Your task to perform on an android device: Empty the shopping cart on ebay.com. Search for "razer blackwidow" on ebay.com, select the first entry, and add it to the cart. Image 0: 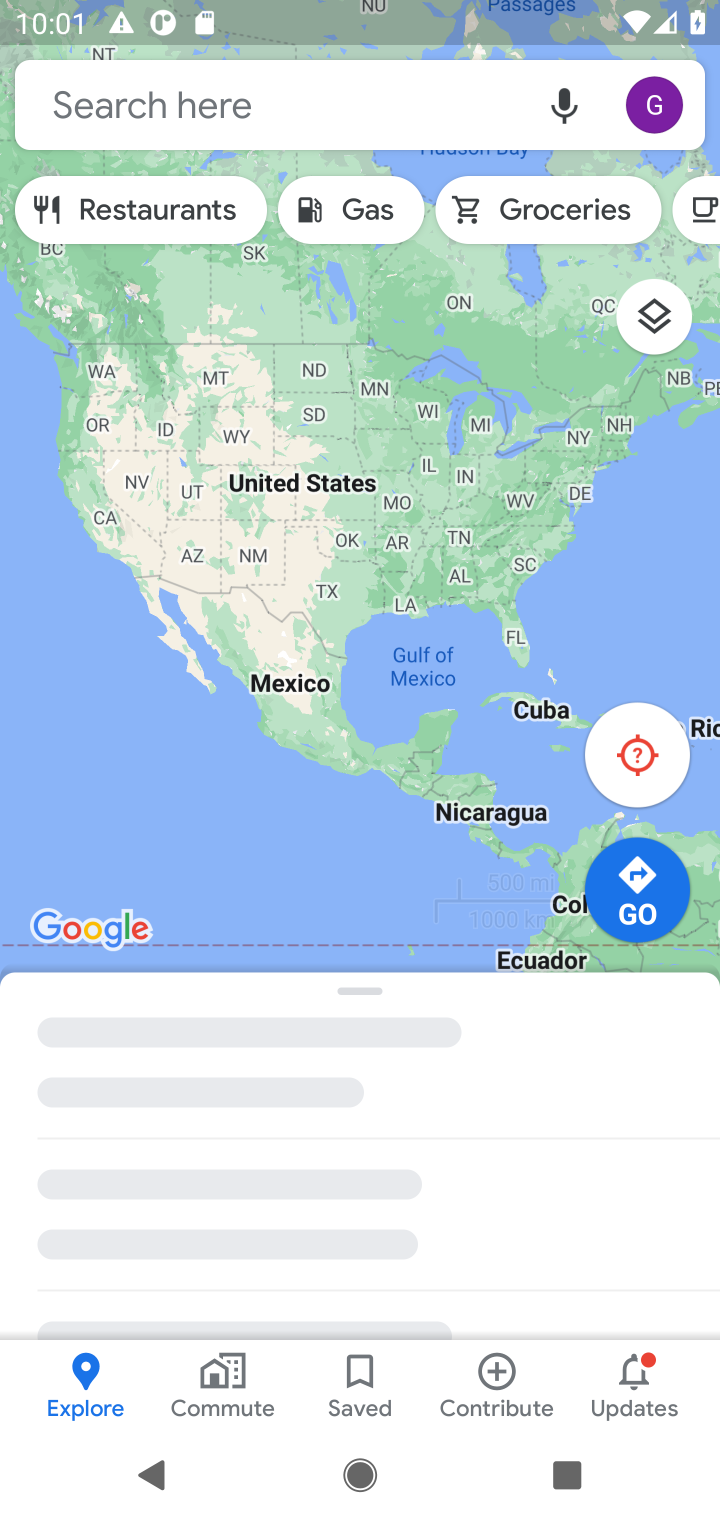
Step 0: press home button
Your task to perform on an android device: Empty the shopping cart on ebay.com. Search for "razer blackwidow" on ebay.com, select the first entry, and add it to the cart. Image 1: 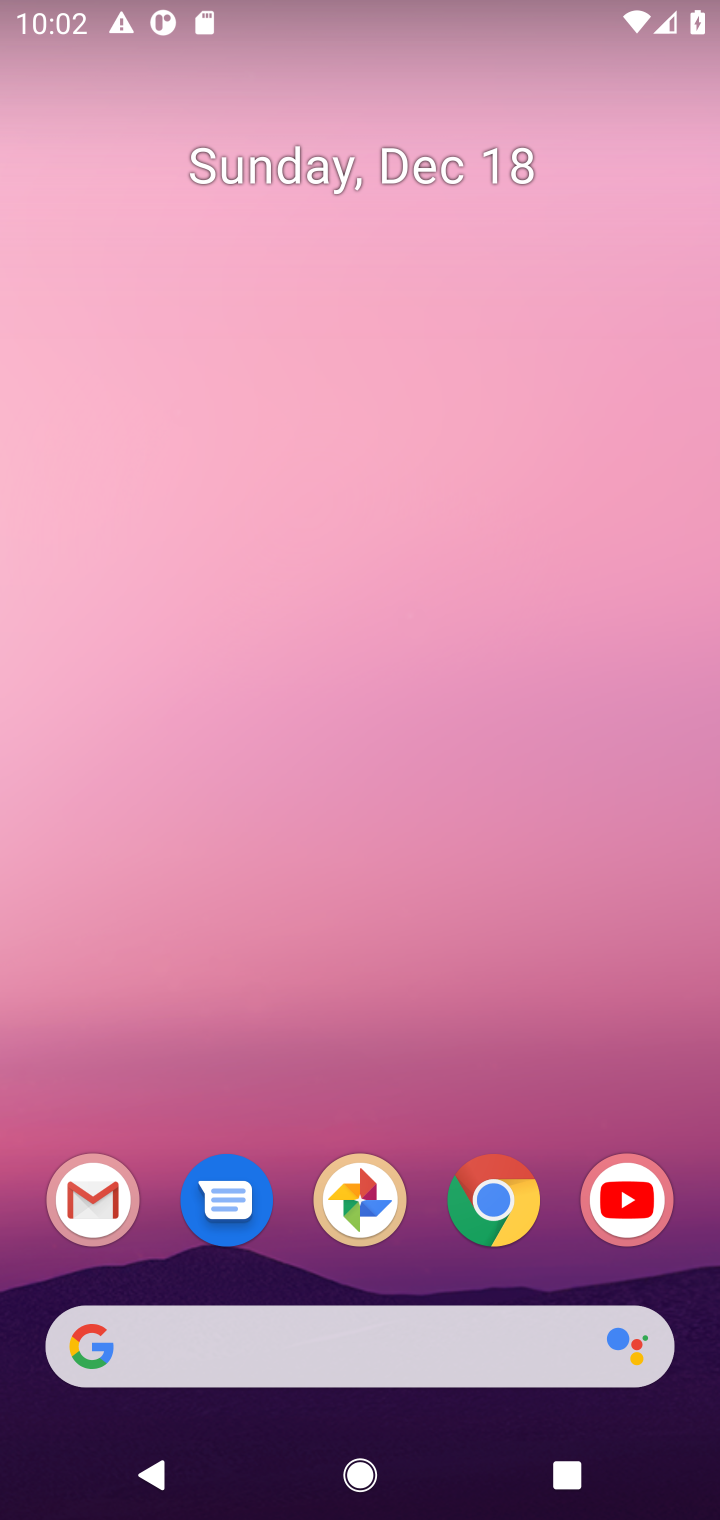
Step 1: click (507, 1204)
Your task to perform on an android device: Empty the shopping cart on ebay.com. Search for "razer blackwidow" on ebay.com, select the first entry, and add it to the cart. Image 2: 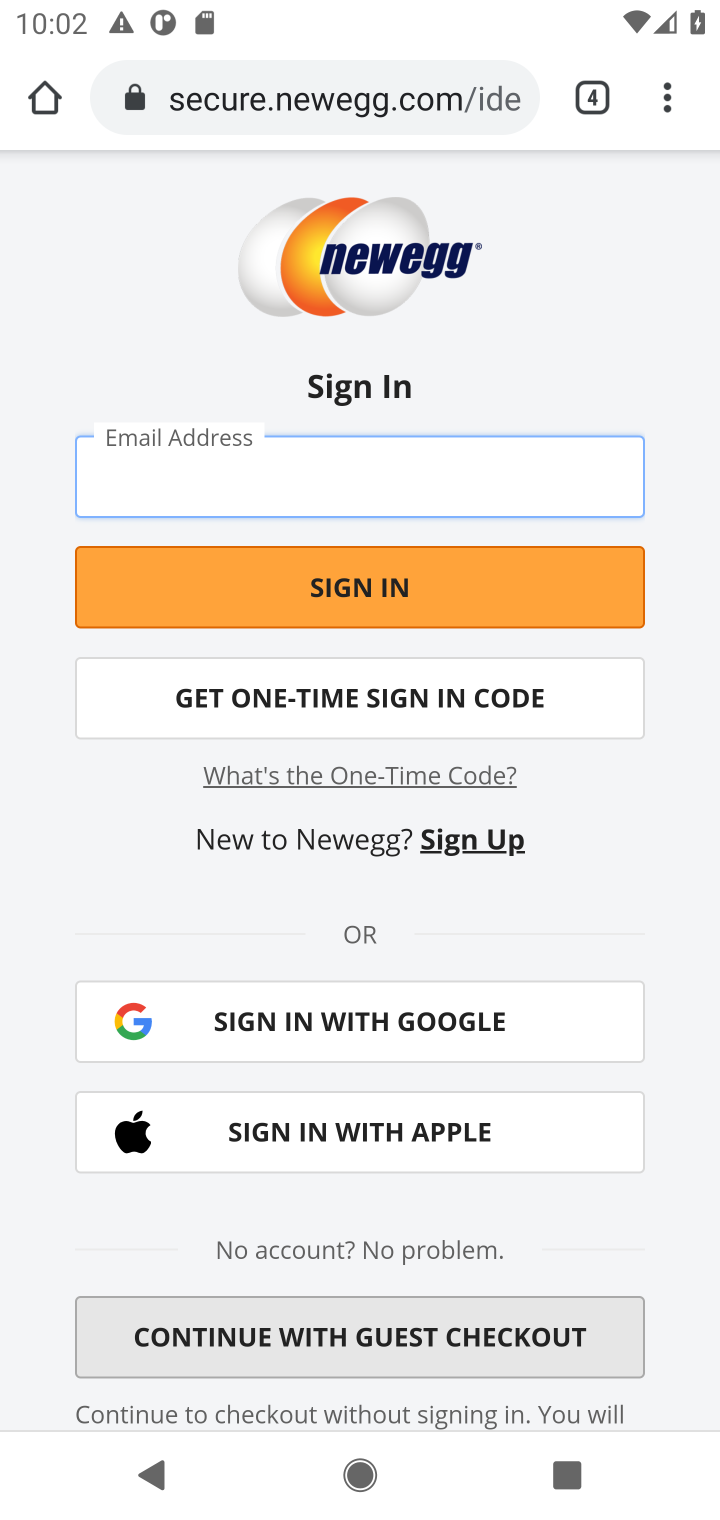
Step 2: click (242, 104)
Your task to perform on an android device: Empty the shopping cart on ebay.com. Search for "razer blackwidow" on ebay.com, select the first entry, and add it to the cart. Image 3: 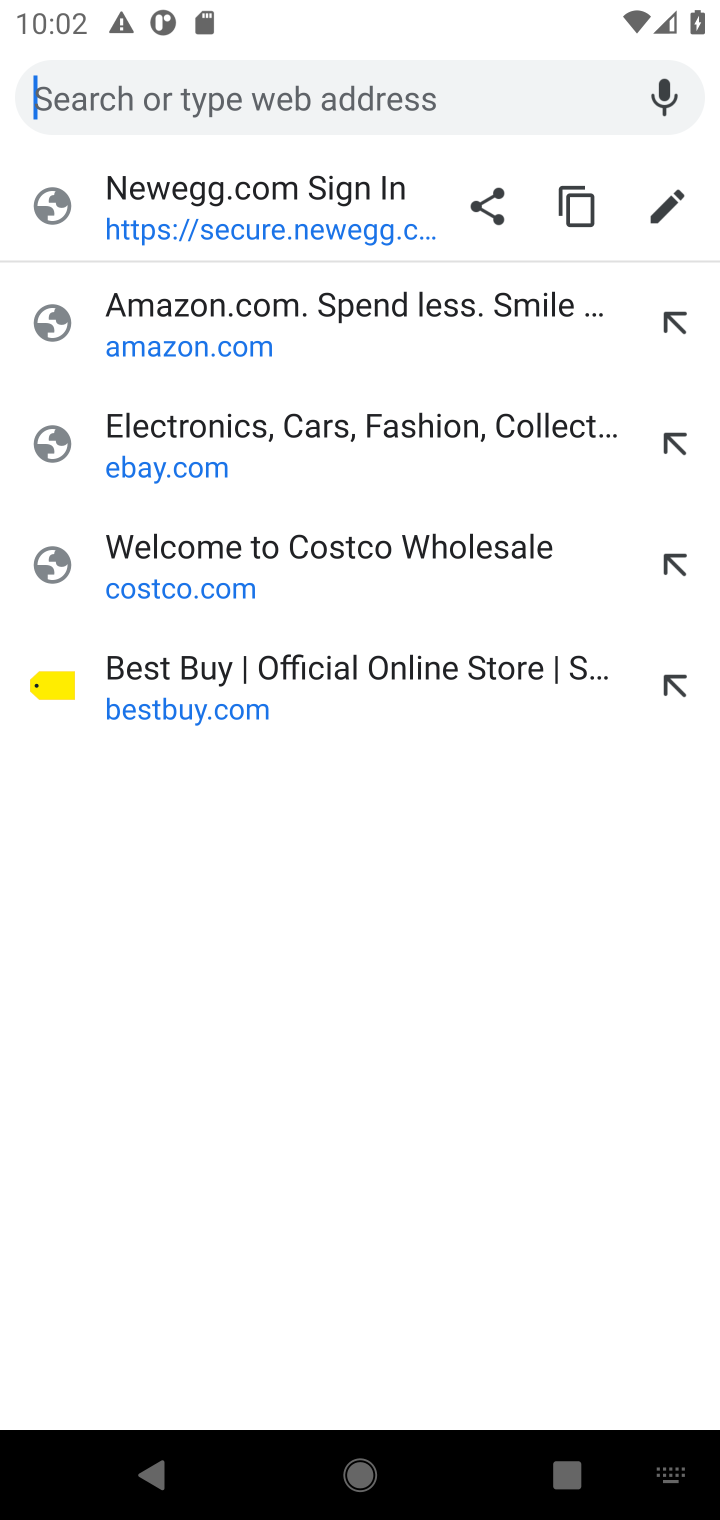
Step 3: click (129, 457)
Your task to perform on an android device: Empty the shopping cart on ebay.com. Search for "razer blackwidow" on ebay.com, select the first entry, and add it to the cart. Image 4: 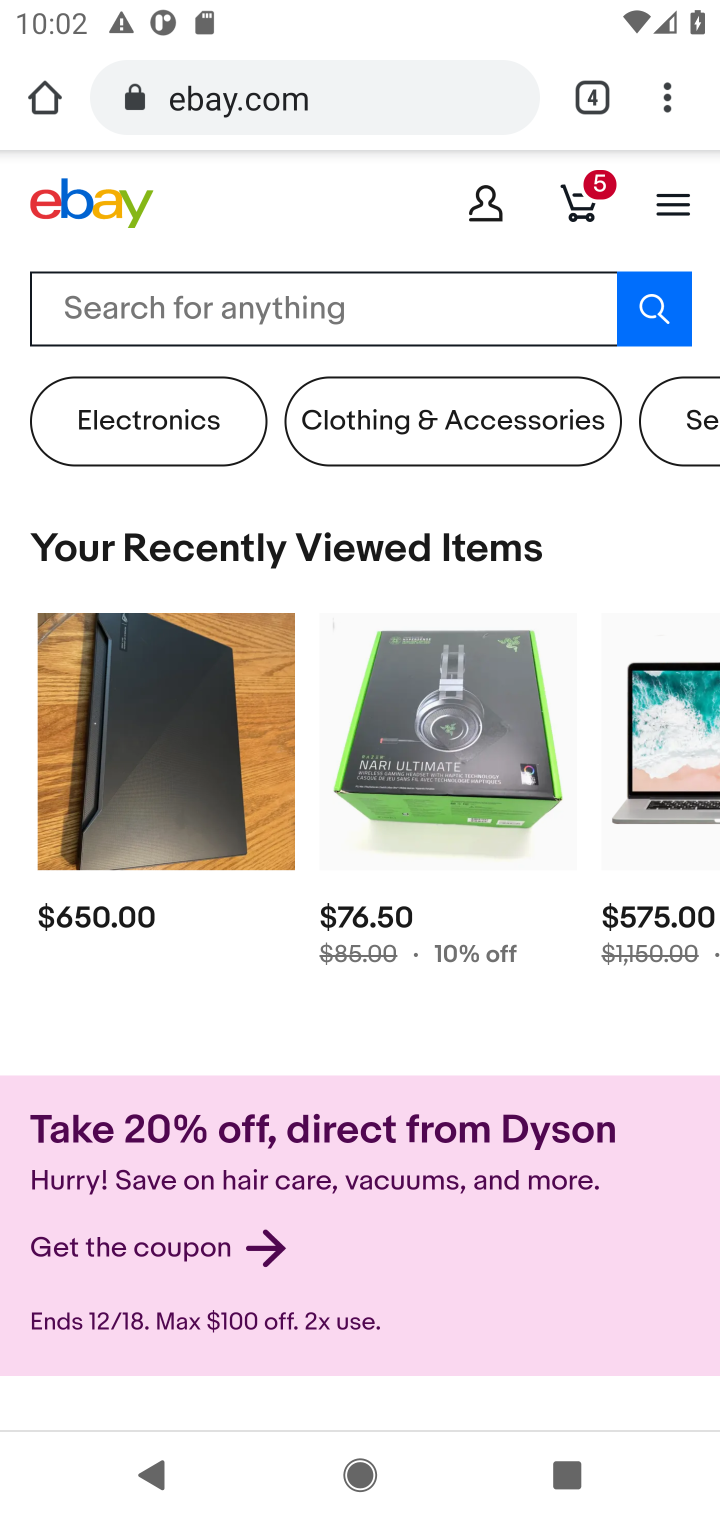
Step 4: click (590, 211)
Your task to perform on an android device: Empty the shopping cart on ebay.com. Search for "razer blackwidow" on ebay.com, select the first entry, and add it to the cart. Image 5: 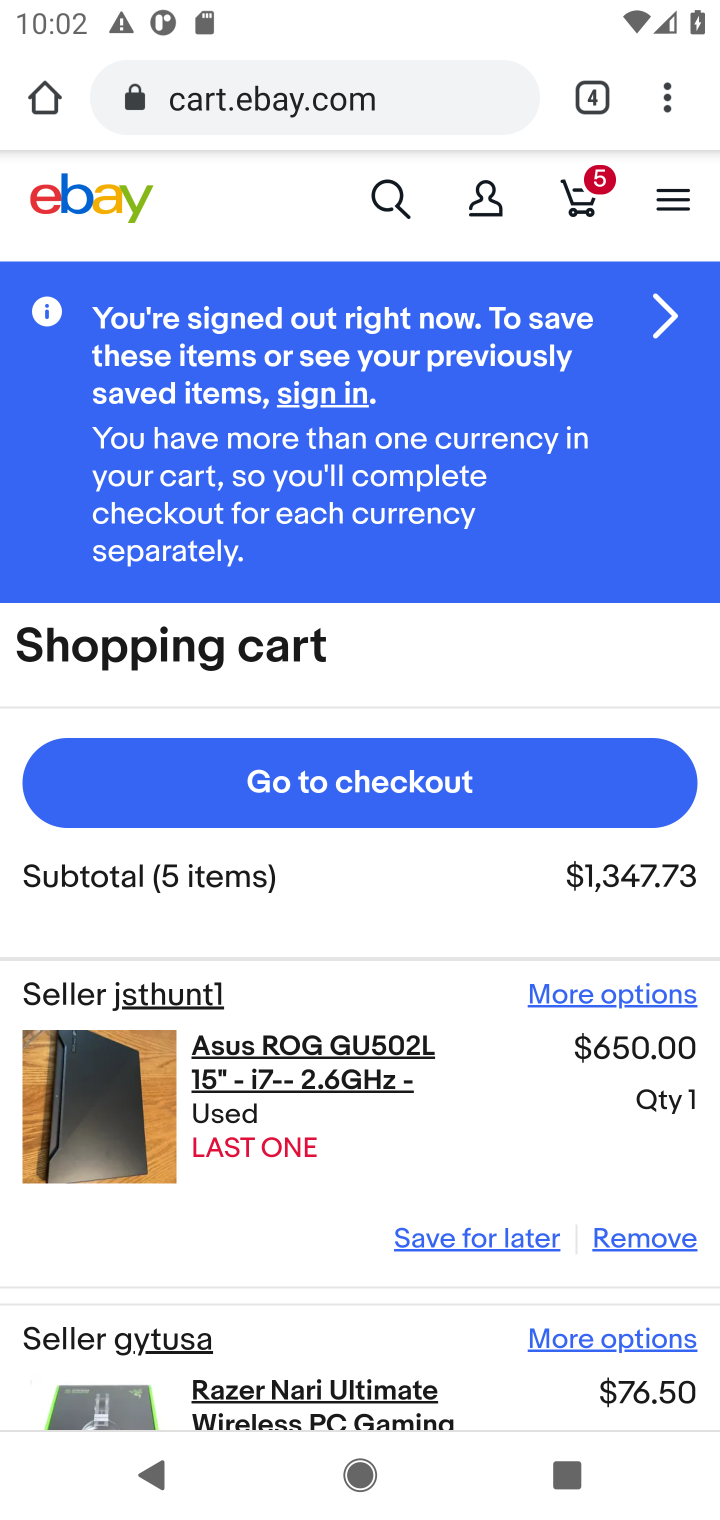
Step 5: click (637, 1233)
Your task to perform on an android device: Empty the shopping cart on ebay.com. Search for "razer blackwidow" on ebay.com, select the first entry, and add it to the cart. Image 6: 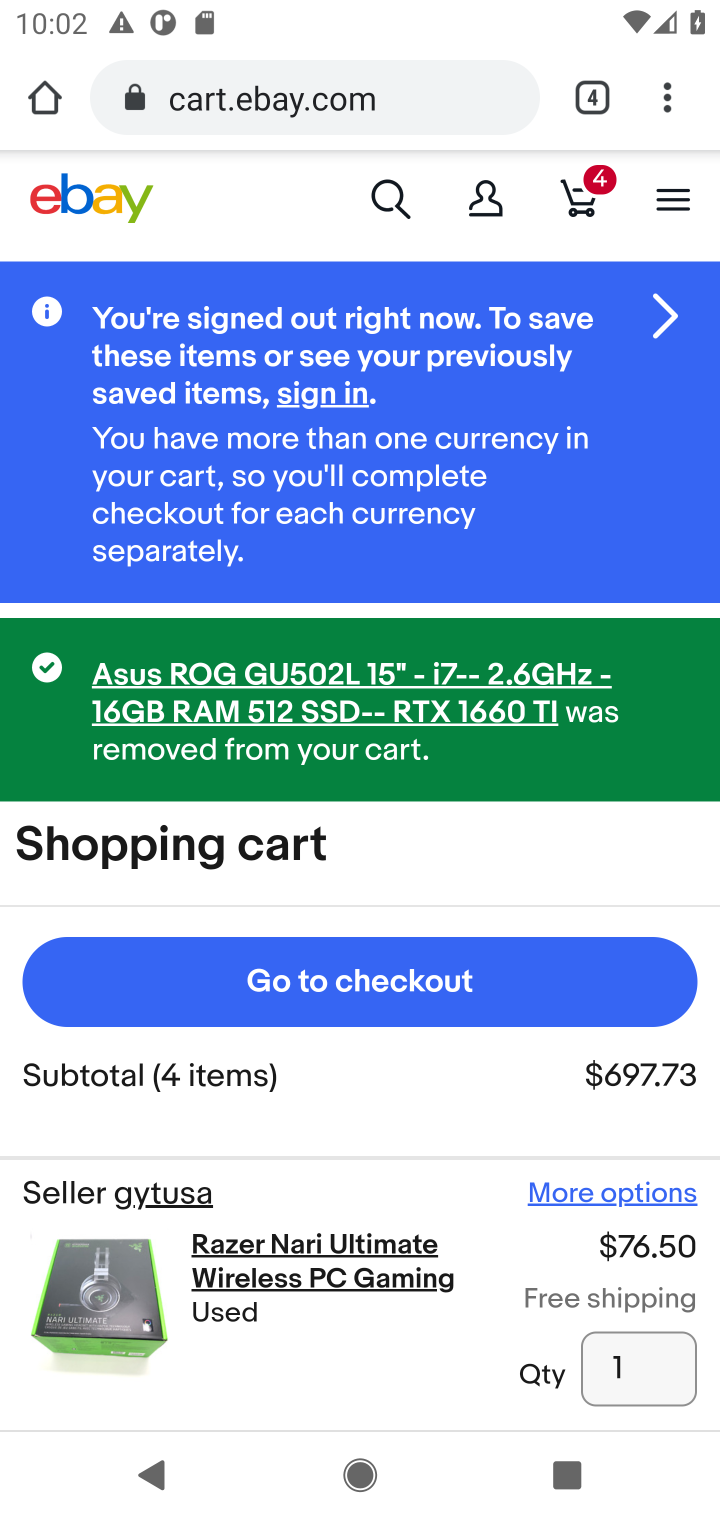
Step 6: drag from (437, 1165) to (433, 556)
Your task to perform on an android device: Empty the shopping cart on ebay.com. Search for "razer blackwidow" on ebay.com, select the first entry, and add it to the cart. Image 7: 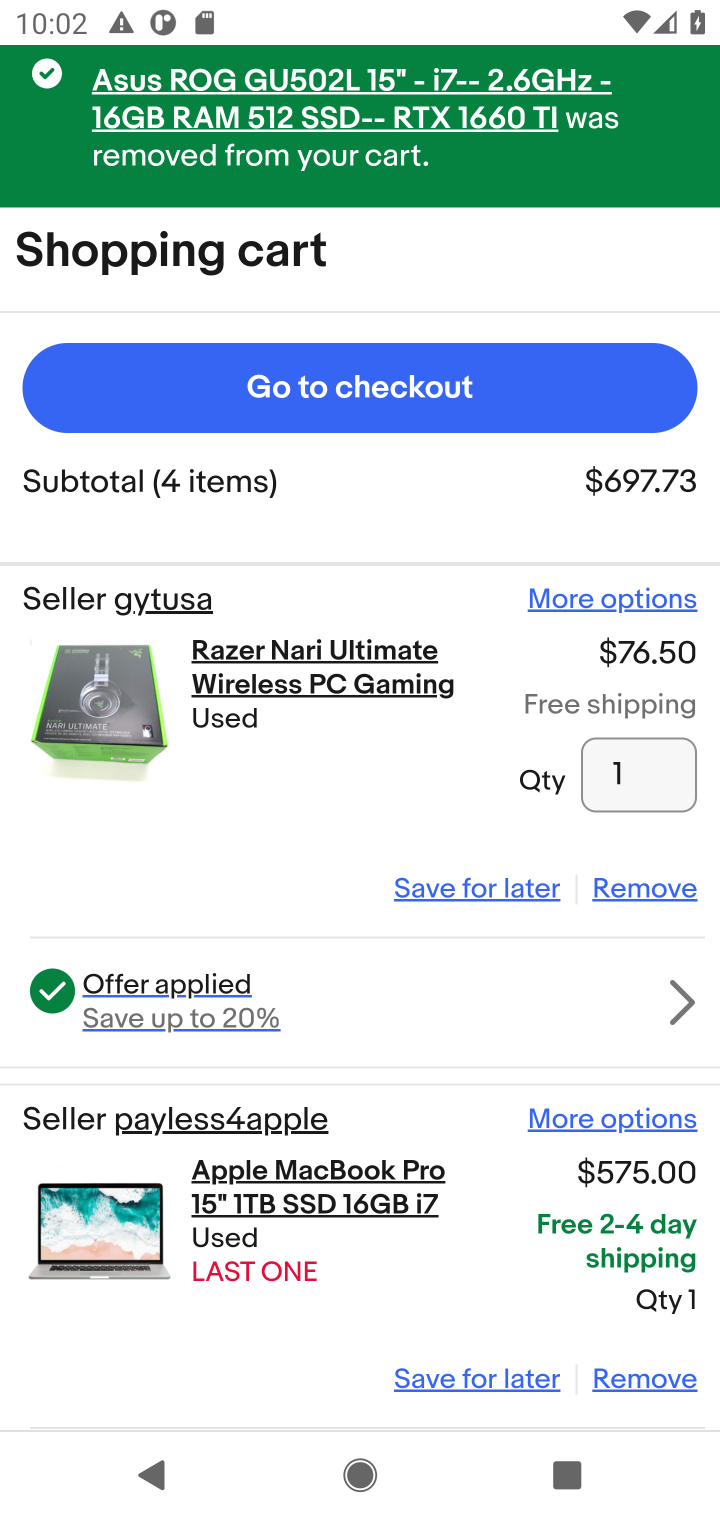
Step 7: click (636, 878)
Your task to perform on an android device: Empty the shopping cart on ebay.com. Search for "razer blackwidow" on ebay.com, select the first entry, and add it to the cart. Image 8: 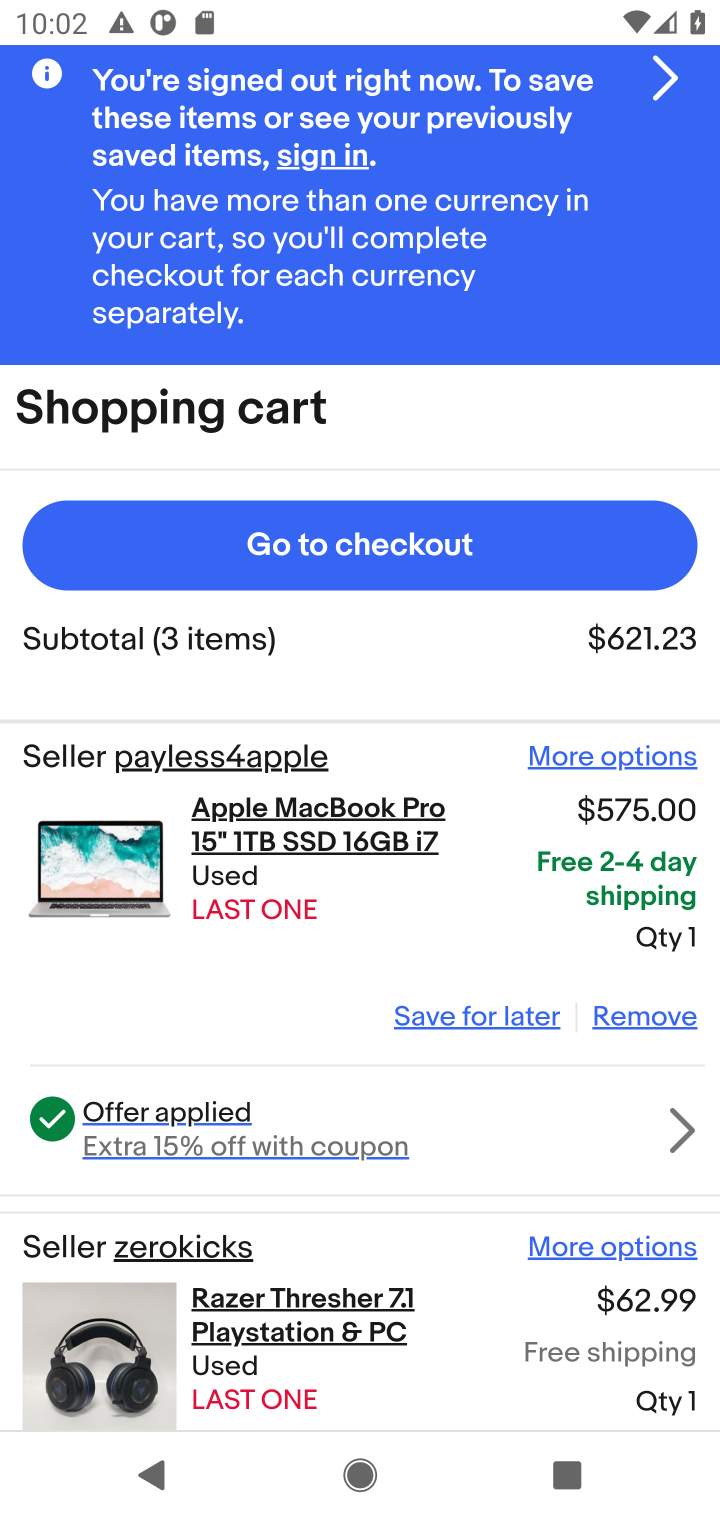
Step 8: click (630, 1018)
Your task to perform on an android device: Empty the shopping cart on ebay.com. Search for "razer blackwidow" on ebay.com, select the first entry, and add it to the cart. Image 9: 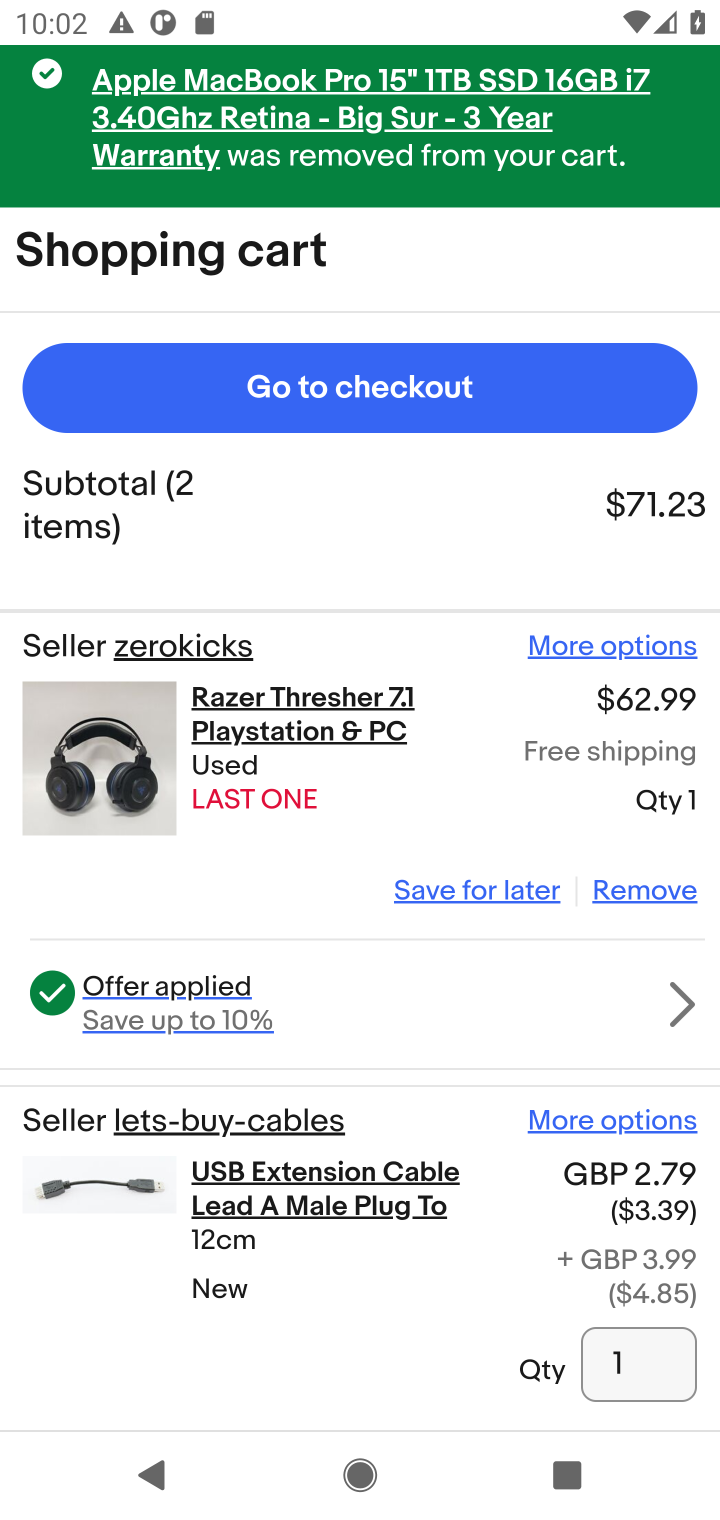
Step 9: click (628, 900)
Your task to perform on an android device: Empty the shopping cart on ebay.com. Search for "razer blackwidow" on ebay.com, select the first entry, and add it to the cart. Image 10: 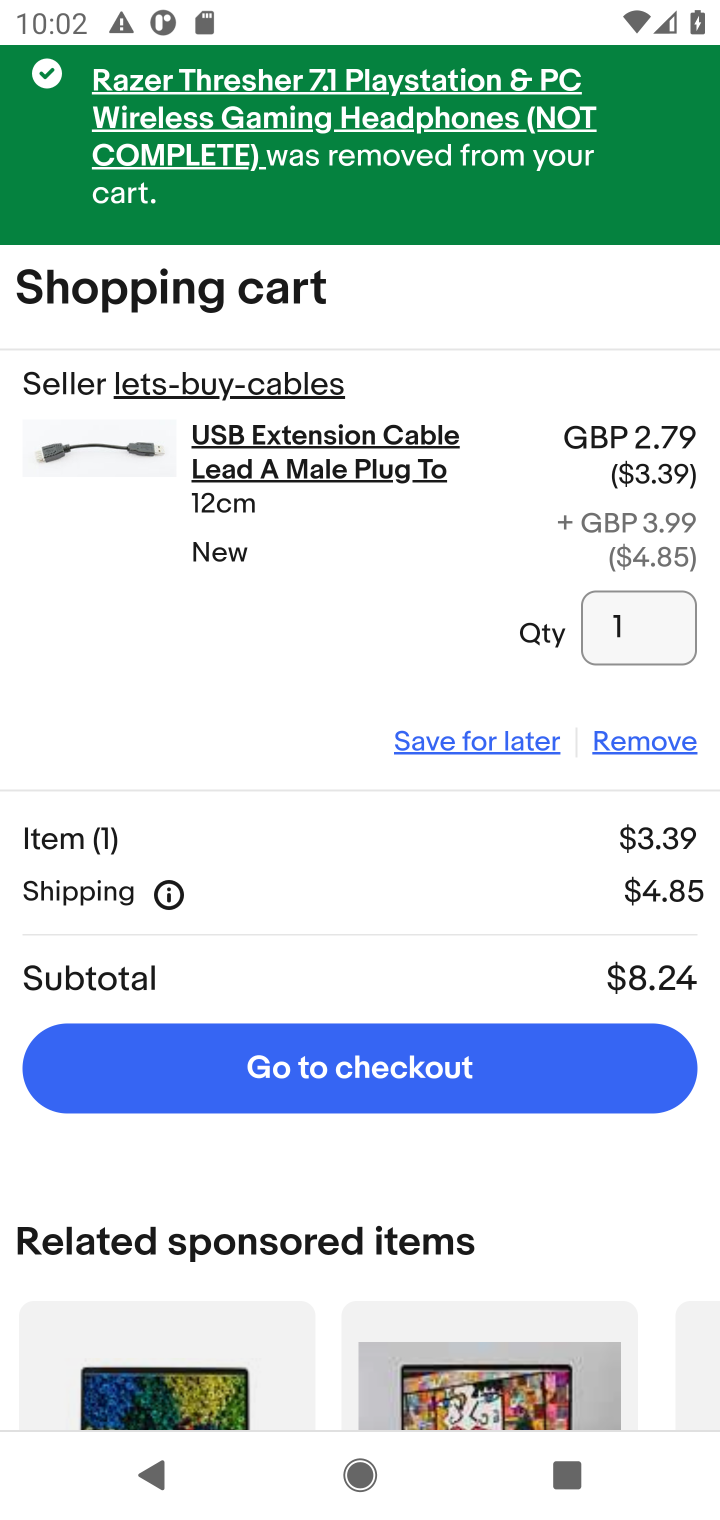
Step 10: click (642, 732)
Your task to perform on an android device: Empty the shopping cart on ebay.com. Search for "razer blackwidow" on ebay.com, select the first entry, and add it to the cart. Image 11: 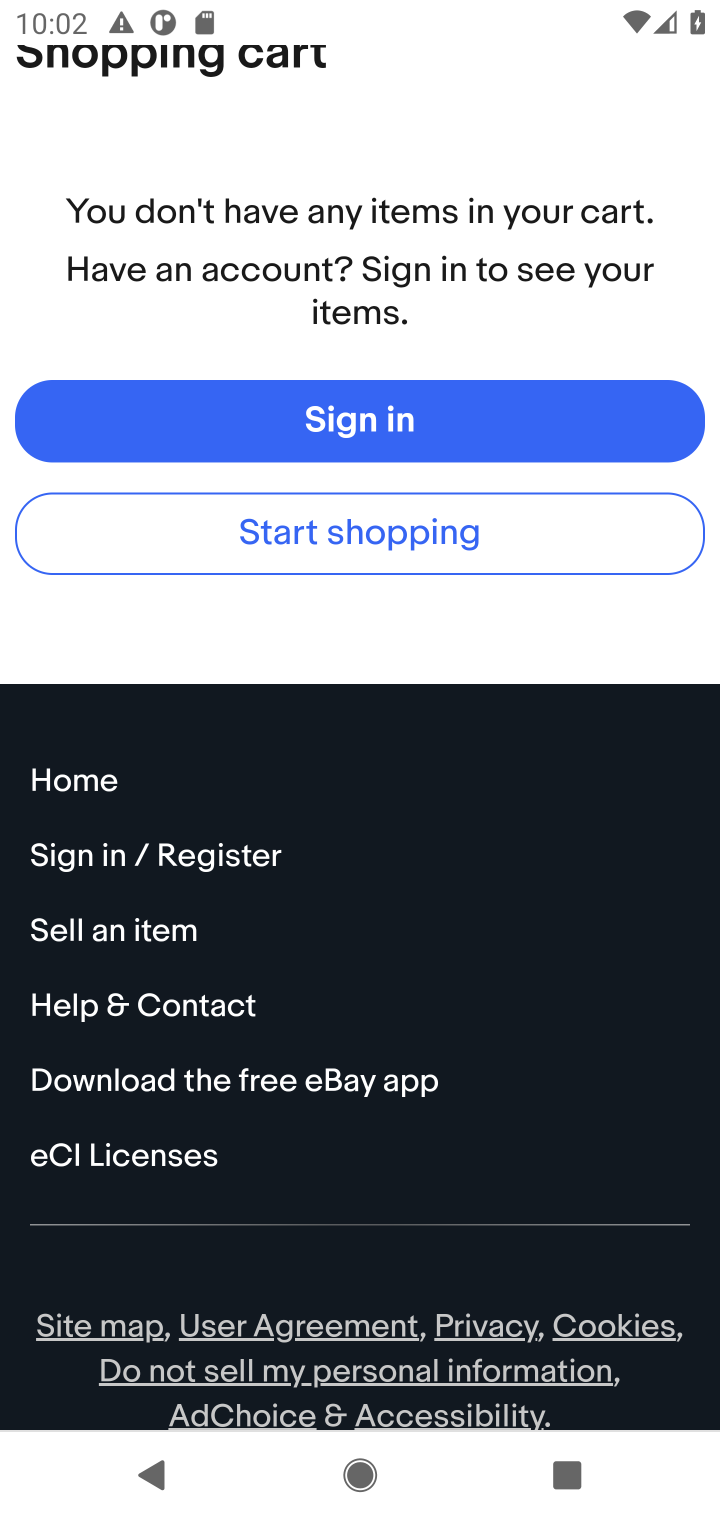
Step 11: drag from (377, 627) to (372, 999)
Your task to perform on an android device: Empty the shopping cart on ebay.com. Search for "razer blackwidow" on ebay.com, select the first entry, and add it to the cart. Image 12: 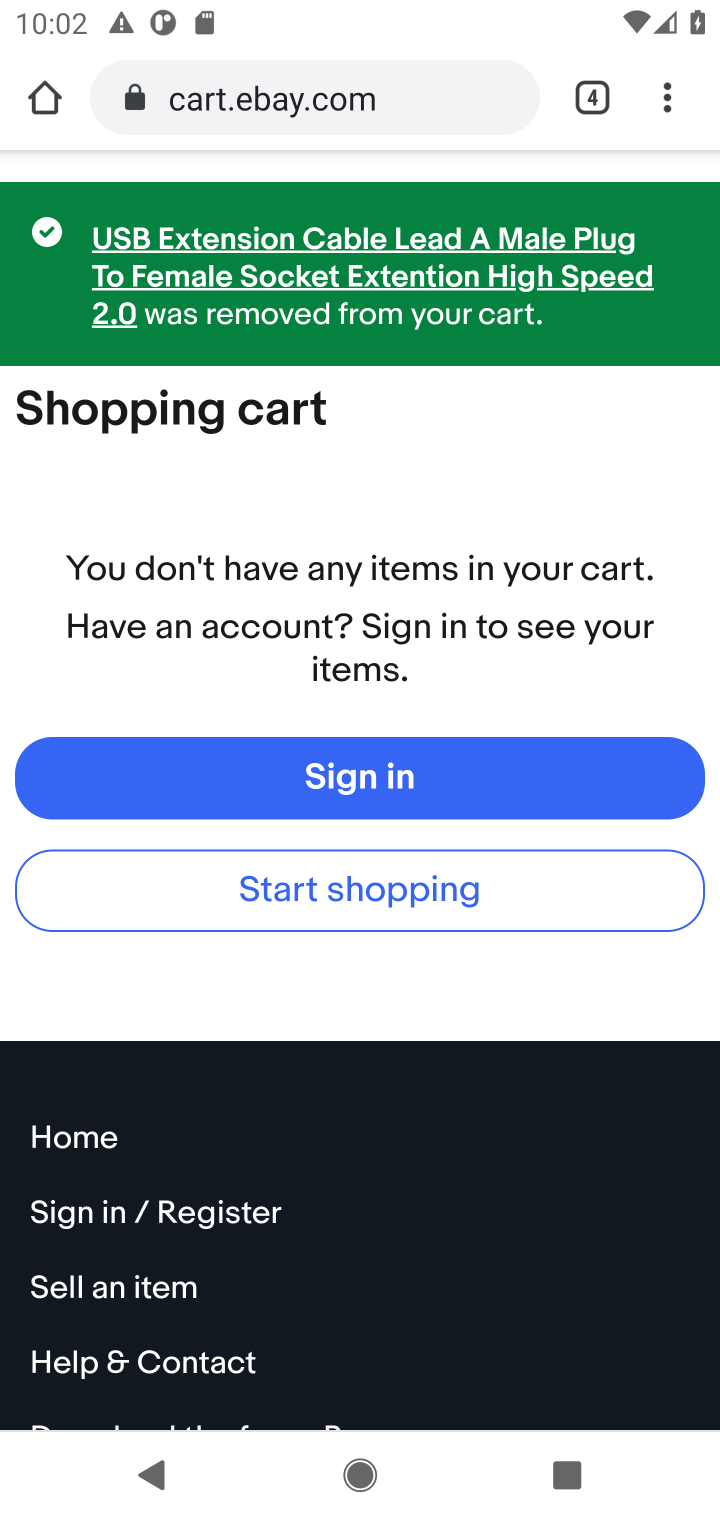
Step 12: drag from (309, 272) to (305, 607)
Your task to perform on an android device: Empty the shopping cart on ebay.com. Search for "razer blackwidow" on ebay.com, select the first entry, and add it to the cart. Image 13: 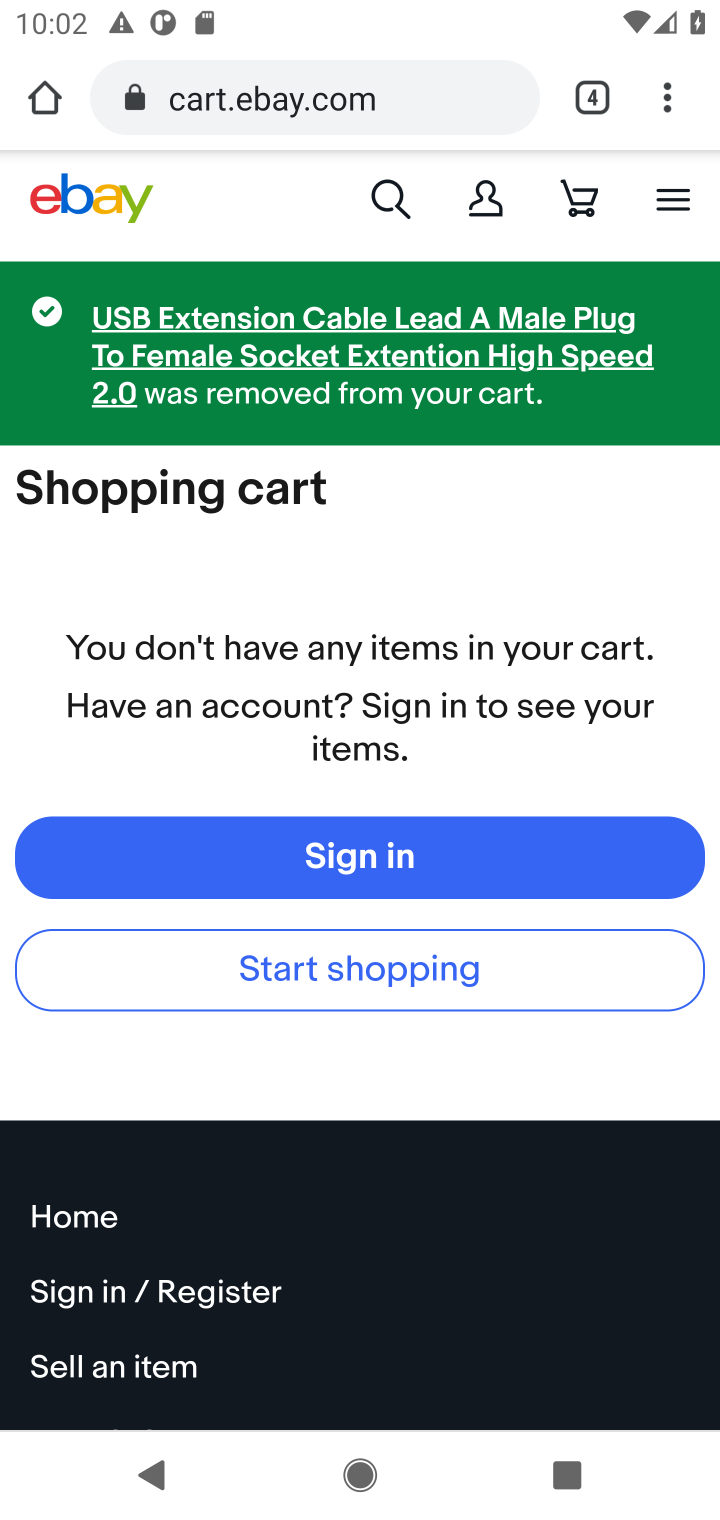
Step 13: click (373, 190)
Your task to perform on an android device: Empty the shopping cart on ebay.com. Search for "razer blackwidow" on ebay.com, select the first entry, and add it to the cart. Image 14: 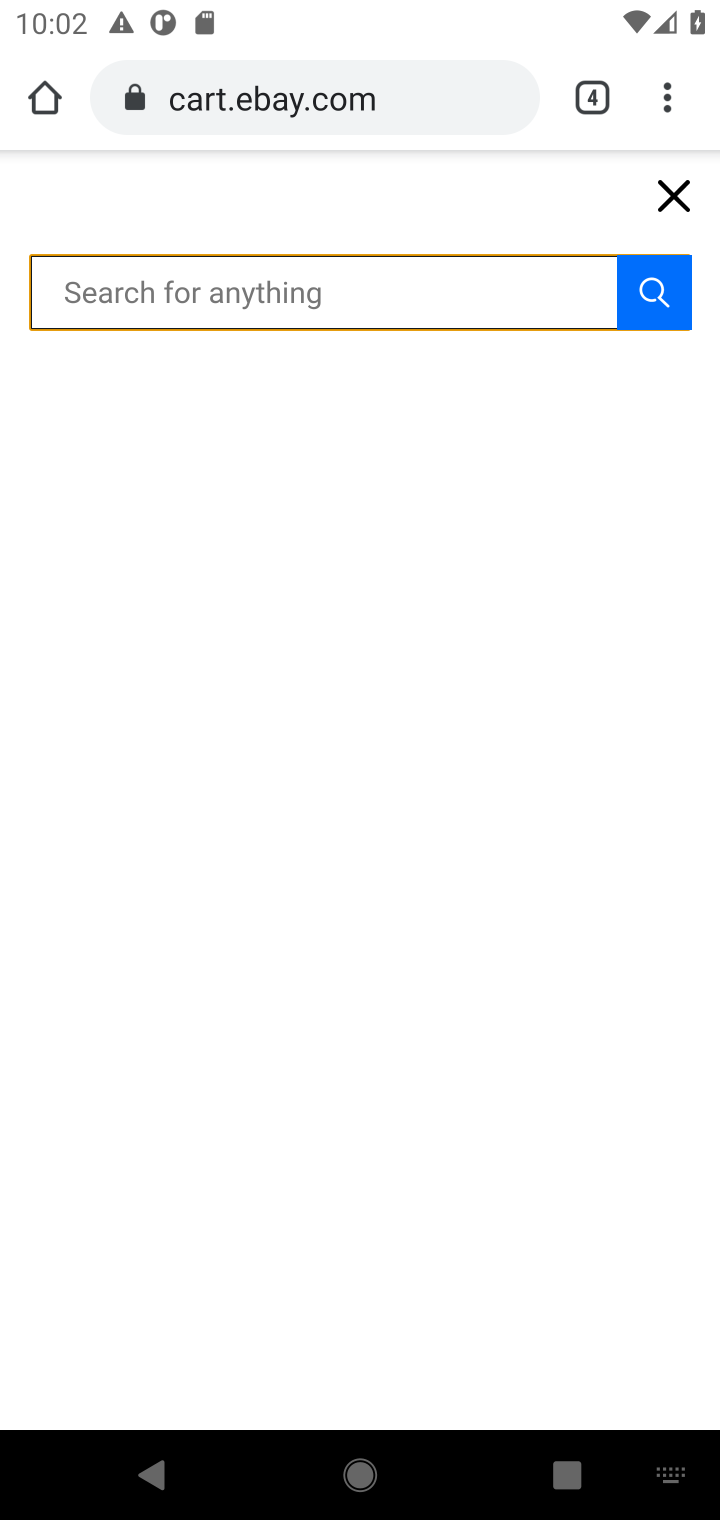
Step 14: click (248, 288)
Your task to perform on an android device: Empty the shopping cart on ebay.com. Search for "razer blackwidow" on ebay.com, select the first entry, and add it to the cart. Image 15: 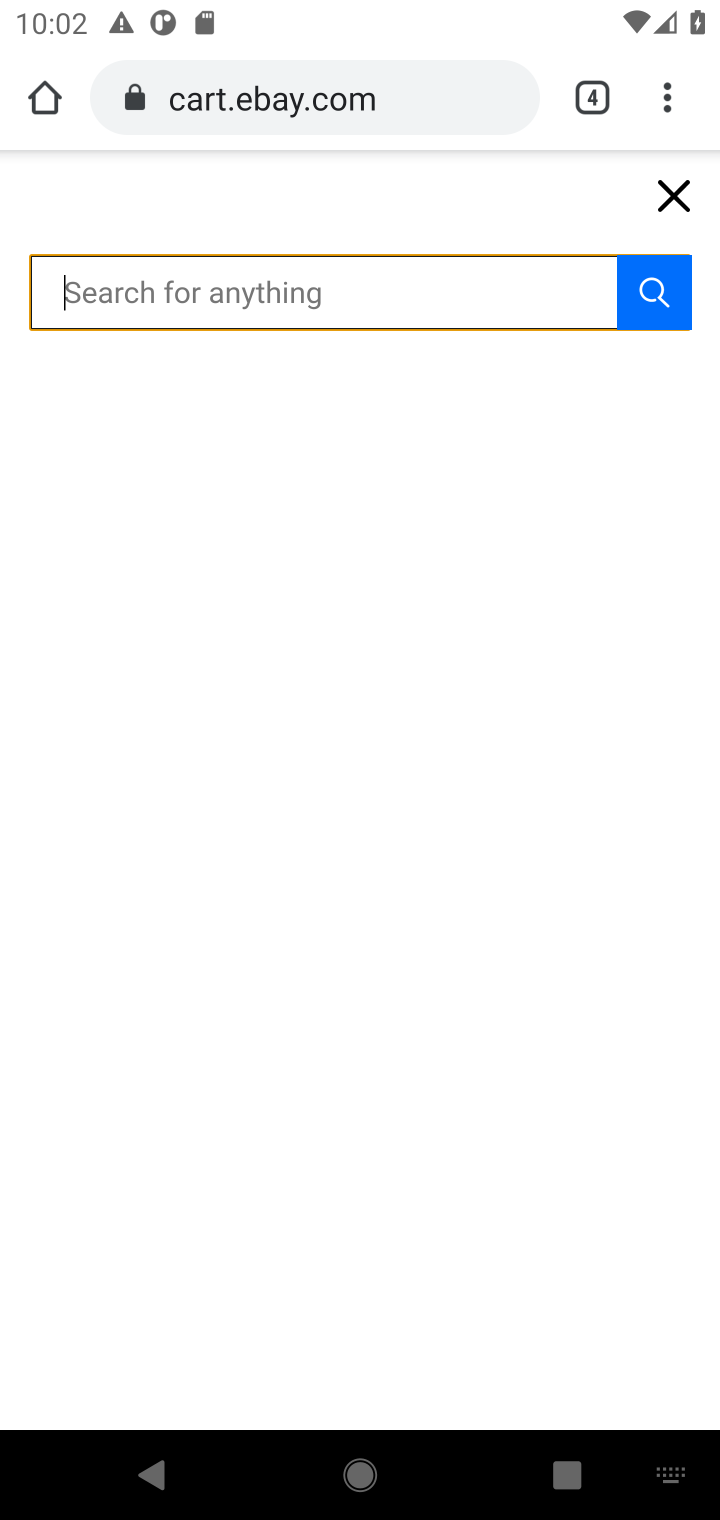
Step 15: type "razer blackwidow"
Your task to perform on an android device: Empty the shopping cart on ebay.com. Search for "razer blackwidow" on ebay.com, select the first entry, and add it to the cart. Image 16: 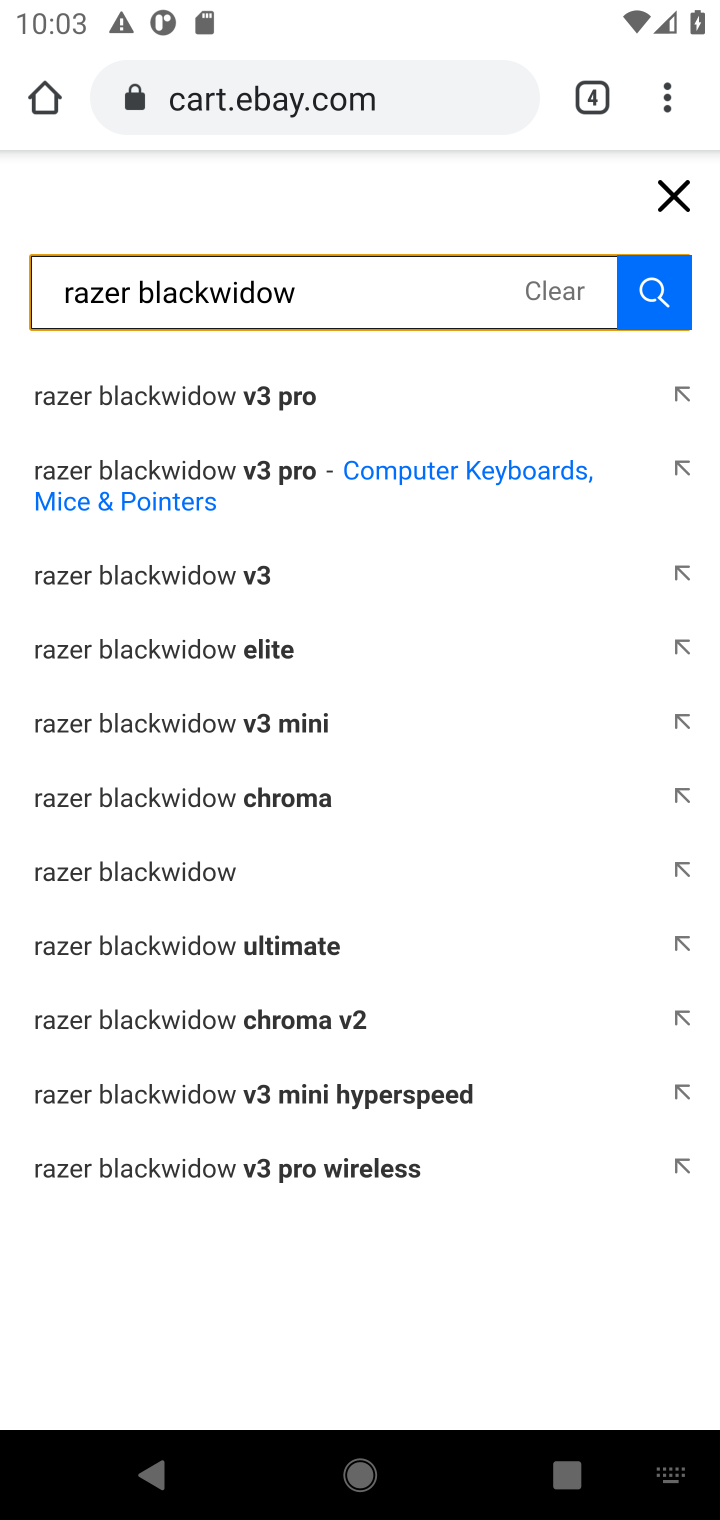
Step 16: click (188, 871)
Your task to perform on an android device: Empty the shopping cart on ebay.com. Search for "razer blackwidow" on ebay.com, select the first entry, and add it to the cart. Image 17: 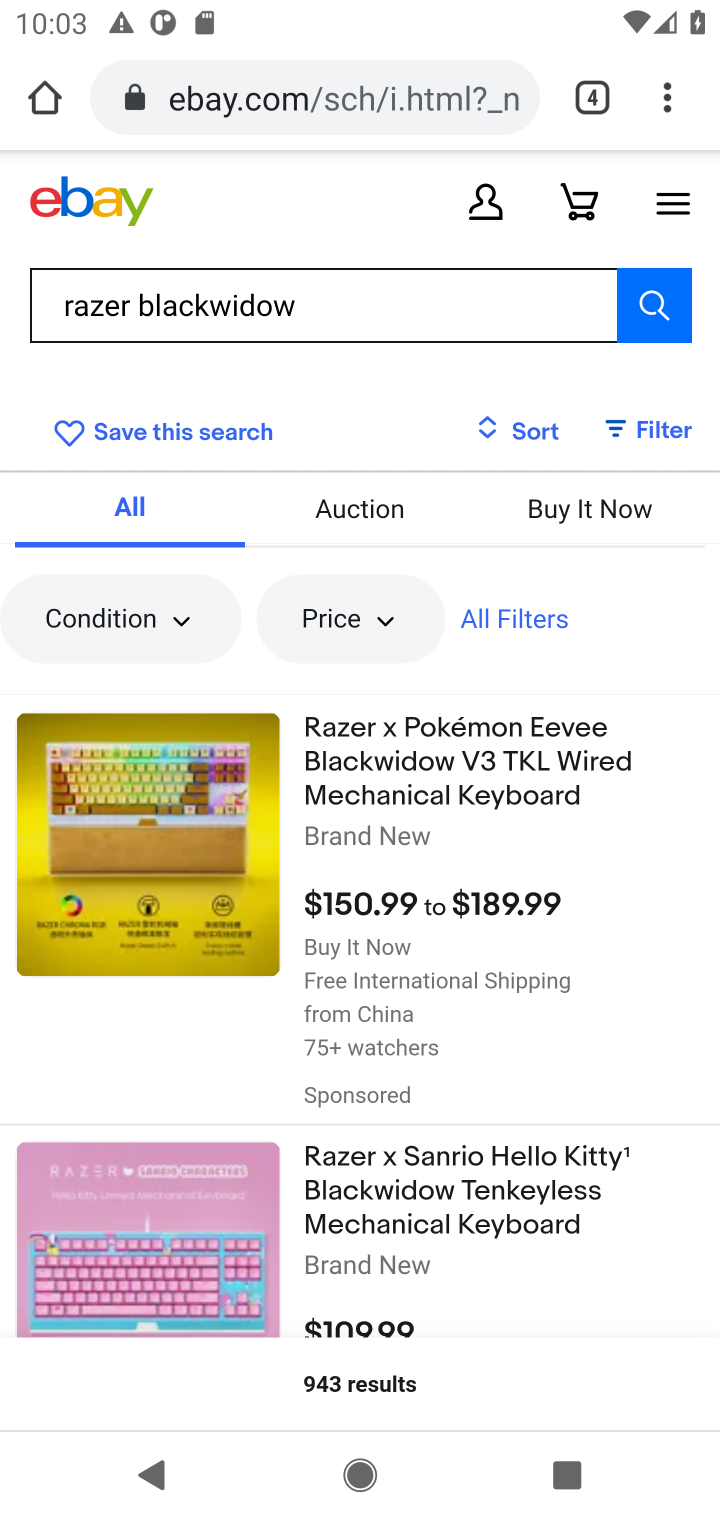
Step 17: click (411, 792)
Your task to perform on an android device: Empty the shopping cart on ebay.com. Search for "razer blackwidow" on ebay.com, select the first entry, and add it to the cart. Image 18: 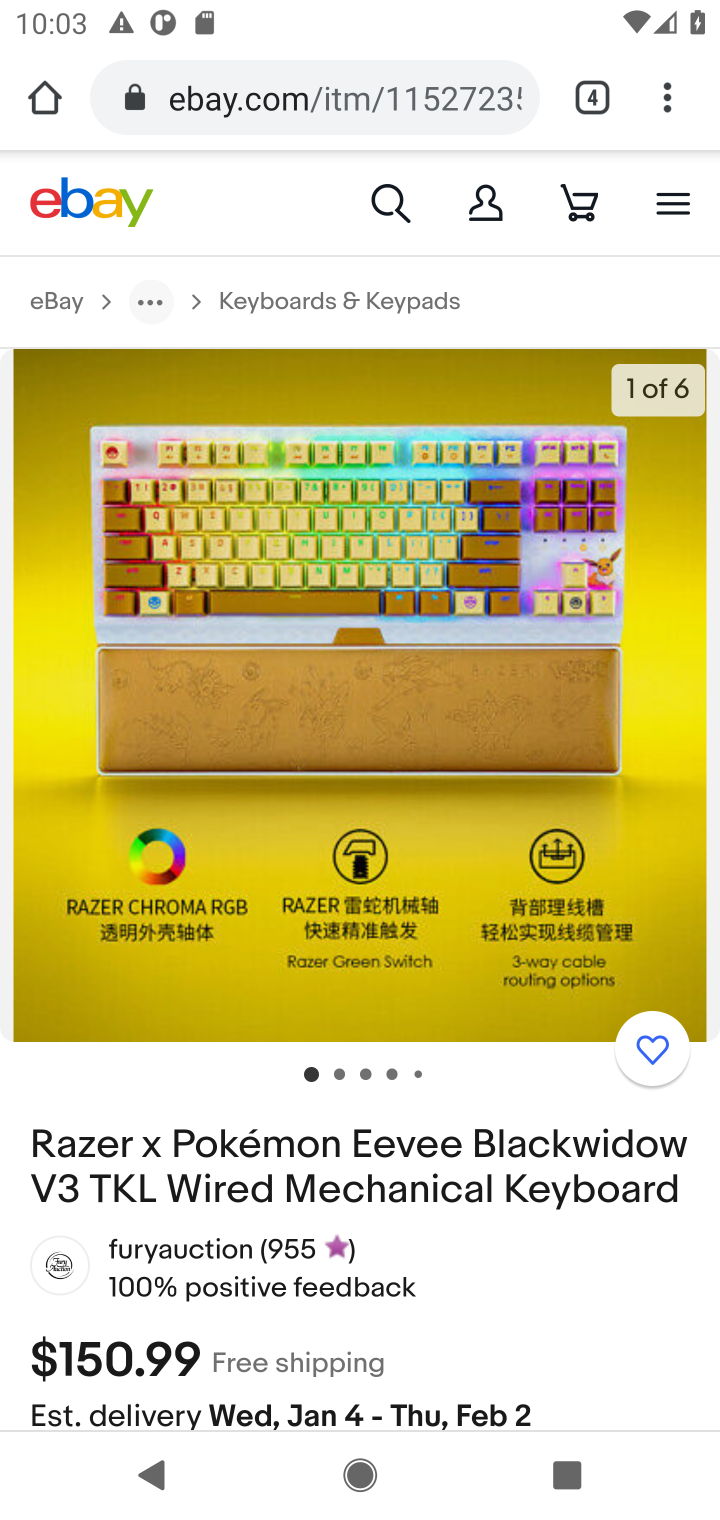
Step 18: drag from (370, 1139) to (346, 621)
Your task to perform on an android device: Empty the shopping cart on ebay.com. Search for "razer blackwidow" on ebay.com, select the first entry, and add it to the cart. Image 19: 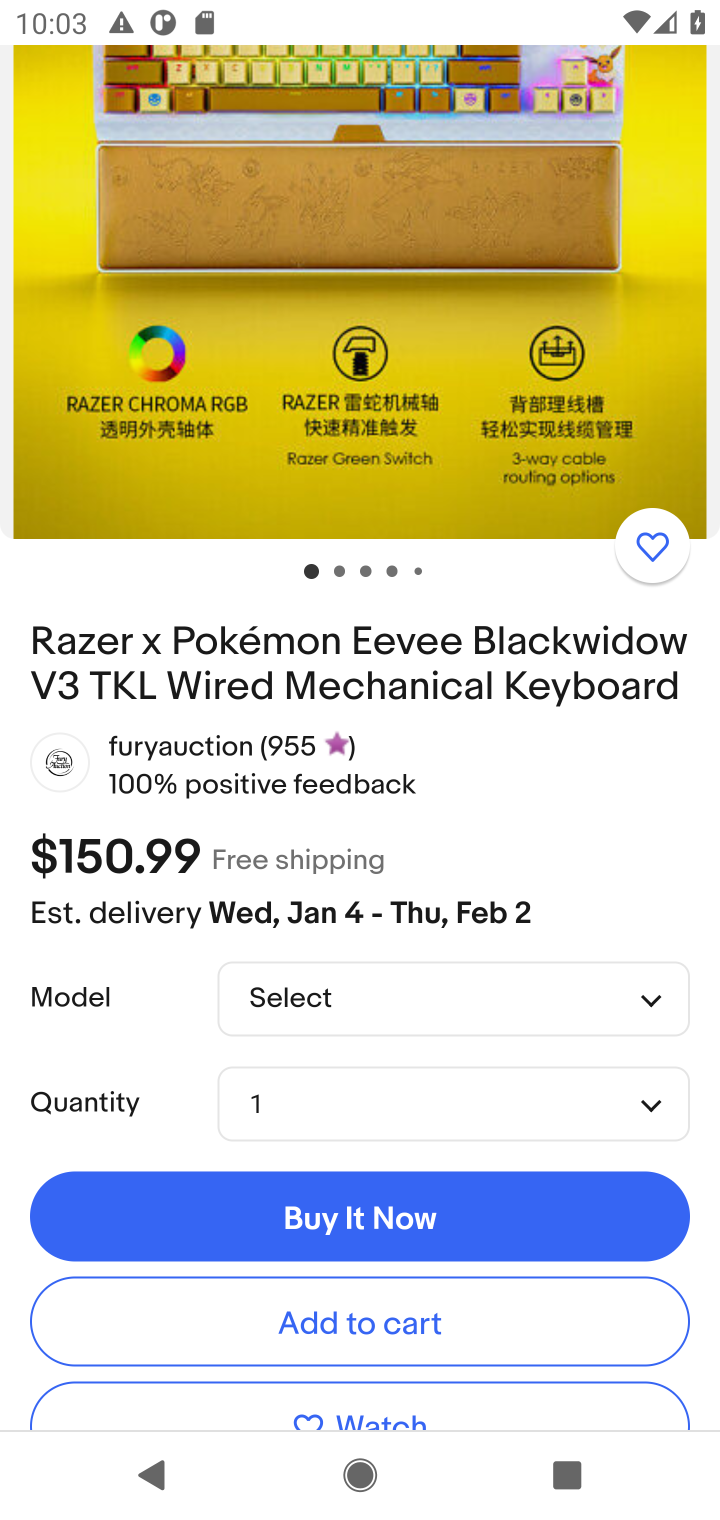
Step 19: click (315, 1315)
Your task to perform on an android device: Empty the shopping cart on ebay.com. Search for "razer blackwidow" on ebay.com, select the first entry, and add it to the cart. Image 20: 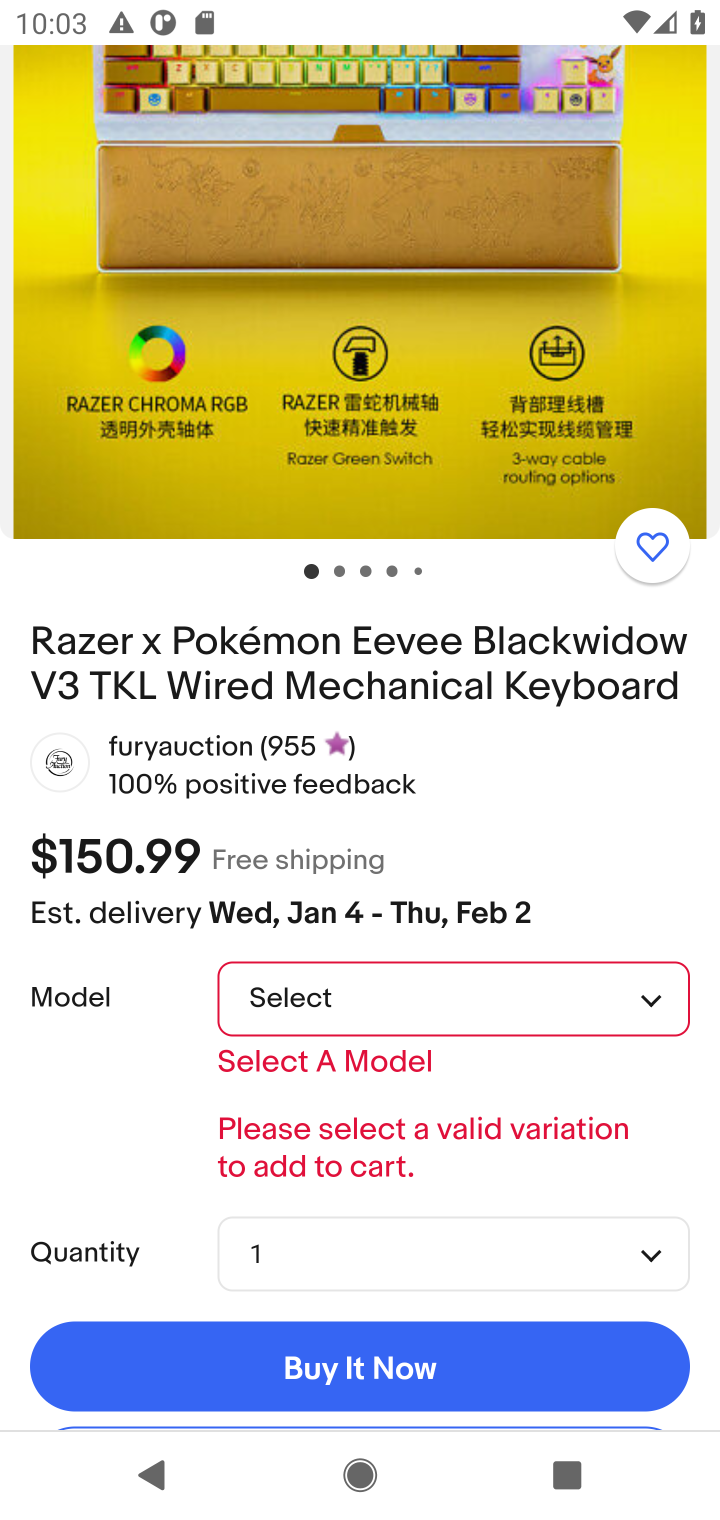
Step 20: click (651, 1009)
Your task to perform on an android device: Empty the shopping cart on ebay.com. Search for "razer blackwidow" on ebay.com, select the first entry, and add it to the cart. Image 21: 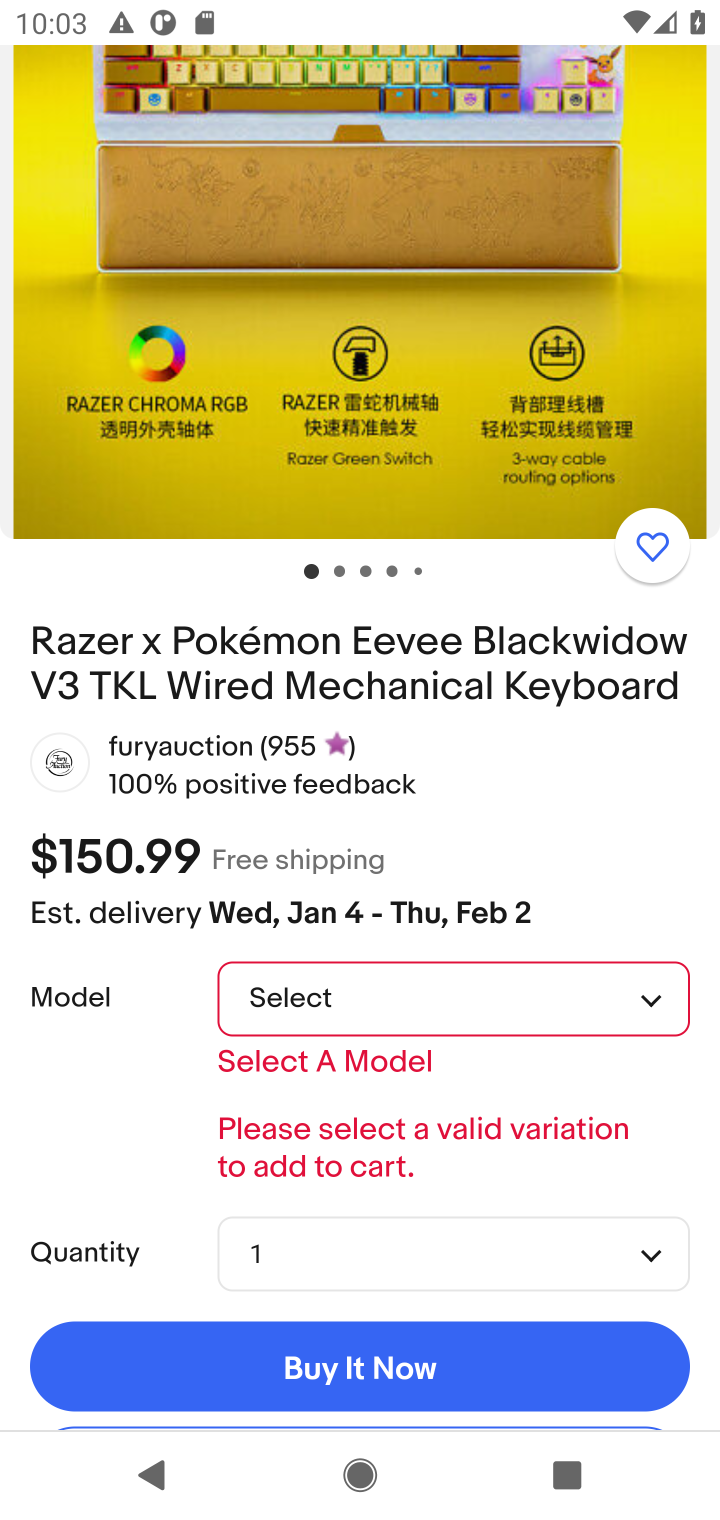
Step 21: click (648, 999)
Your task to perform on an android device: Empty the shopping cart on ebay.com. Search for "razer blackwidow" on ebay.com, select the first entry, and add it to the cart. Image 22: 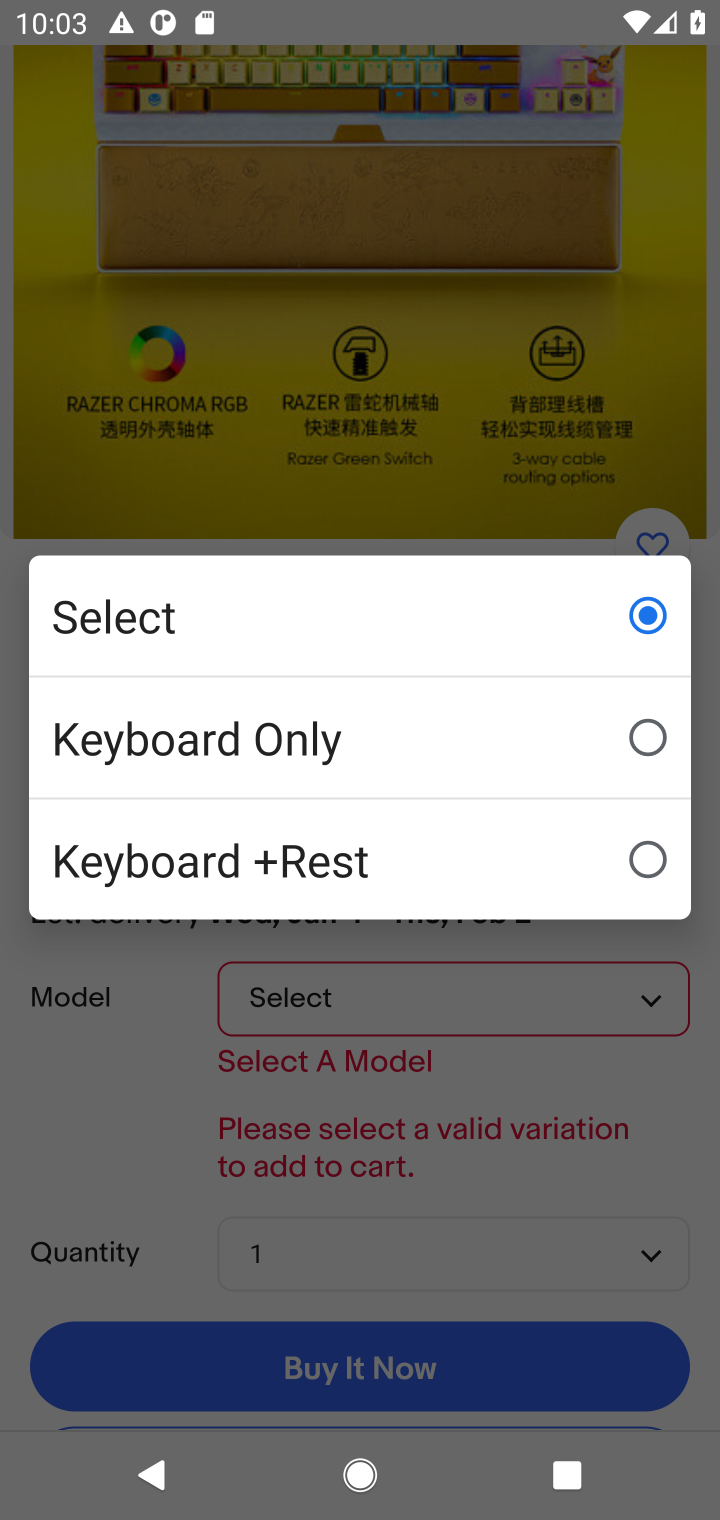
Step 22: click (158, 761)
Your task to perform on an android device: Empty the shopping cart on ebay.com. Search for "razer blackwidow" on ebay.com, select the first entry, and add it to the cart. Image 23: 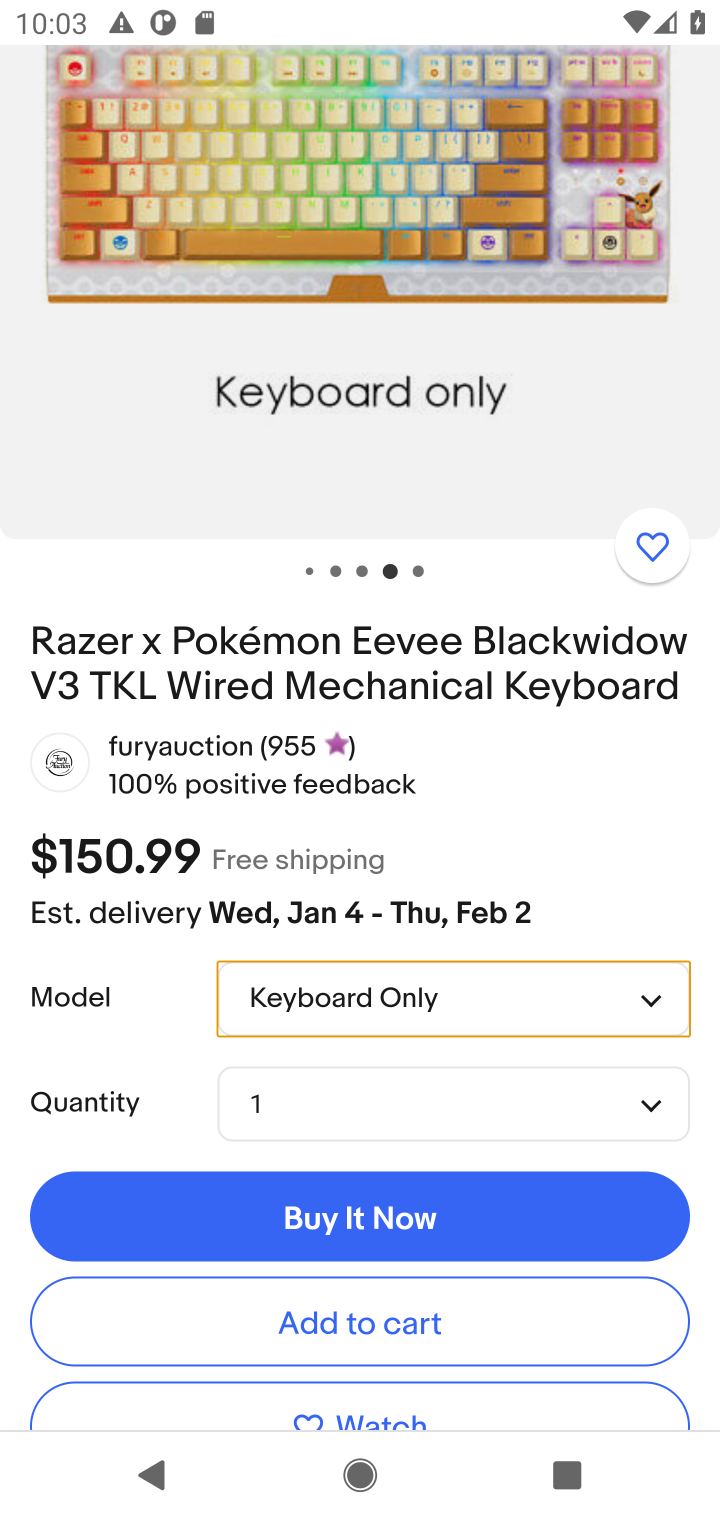
Step 23: click (340, 1323)
Your task to perform on an android device: Empty the shopping cart on ebay.com. Search for "razer blackwidow" on ebay.com, select the first entry, and add it to the cart. Image 24: 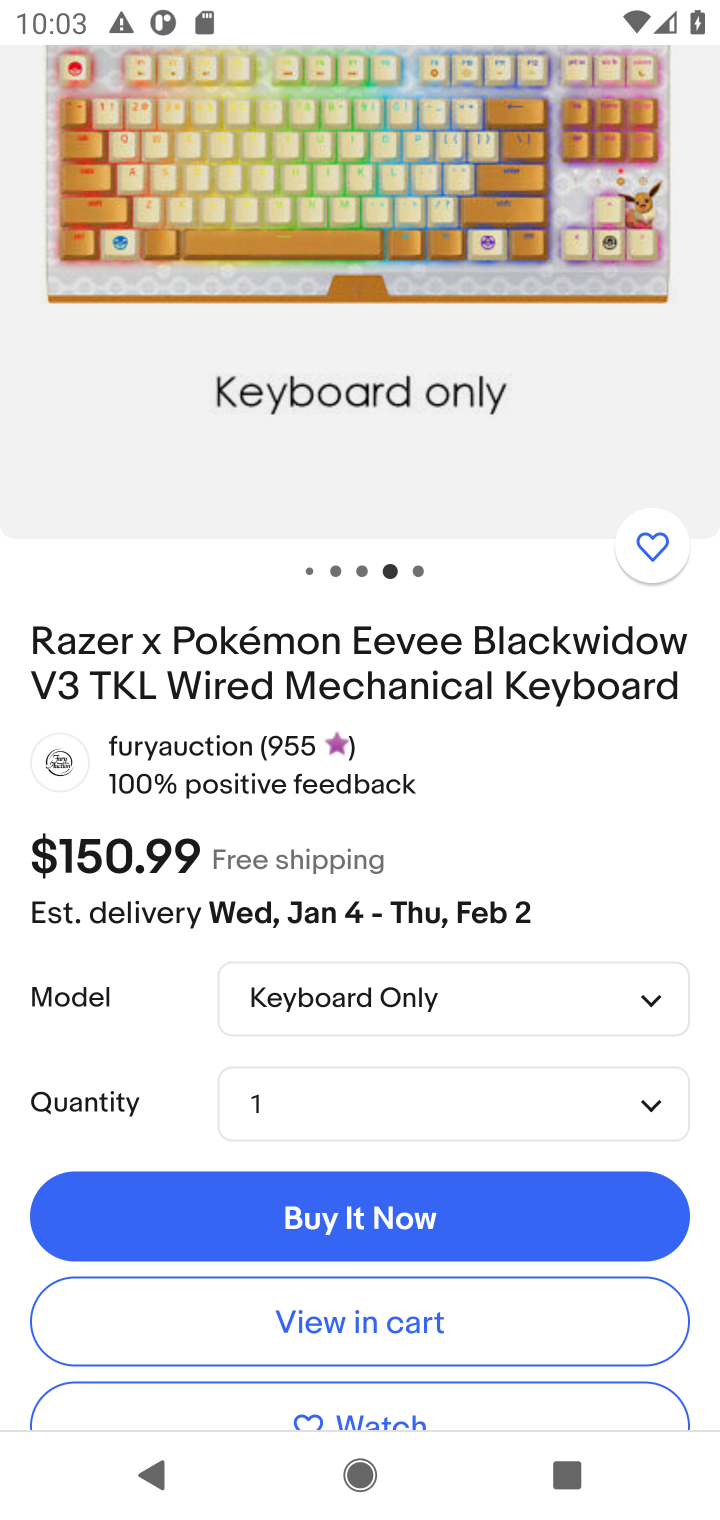
Step 24: task complete